Your task to perform on an android device: Open settings Image 0: 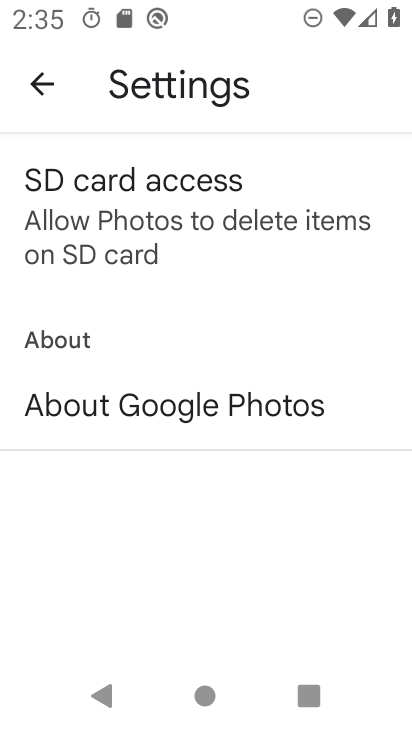
Step 0: press home button
Your task to perform on an android device: Open settings Image 1: 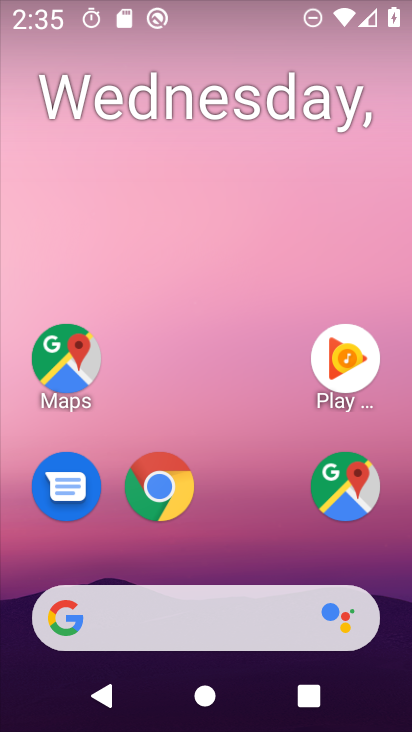
Step 1: drag from (243, 546) to (219, 134)
Your task to perform on an android device: Open settings Image 2: 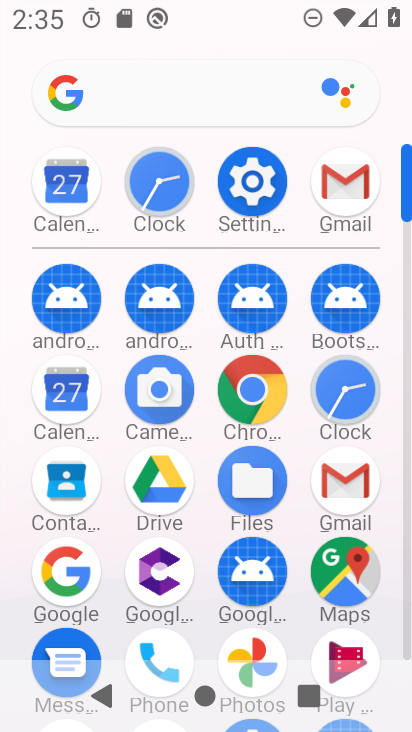
Step 2: click (264, 192)
Your task to perform on an android device: Open settings Image 3: 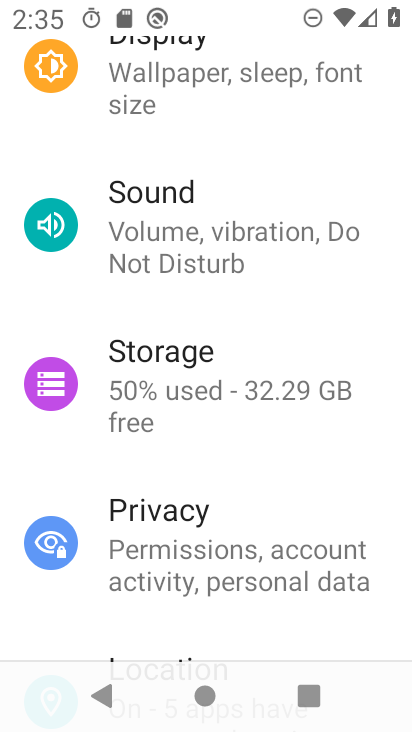
Step 3: task complete